Your task to perform on an android device: change notifications settings Image 0: 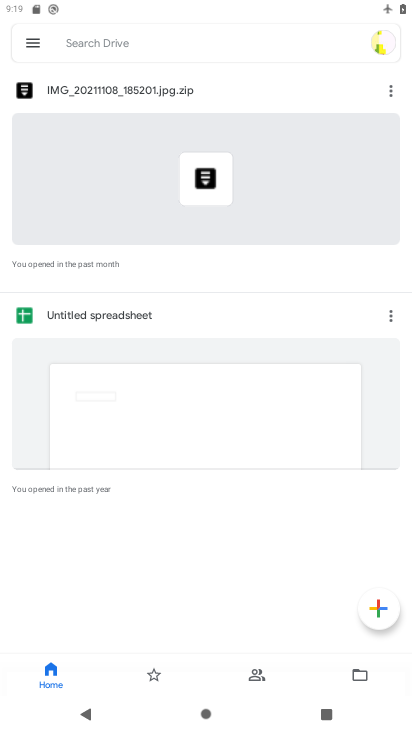
Step 0: press home button
Your task to perform on an android device: change notifications settings Image 1: 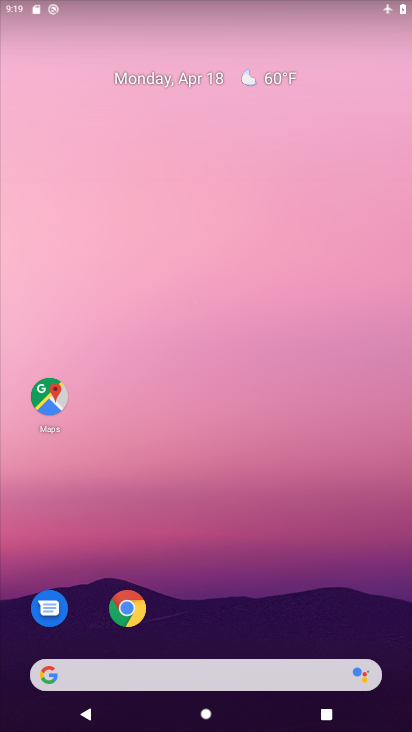
Step 1: drag from (390, 618) to (295, 163)
Your task to perform on an android device: change notifications settings Image 2: 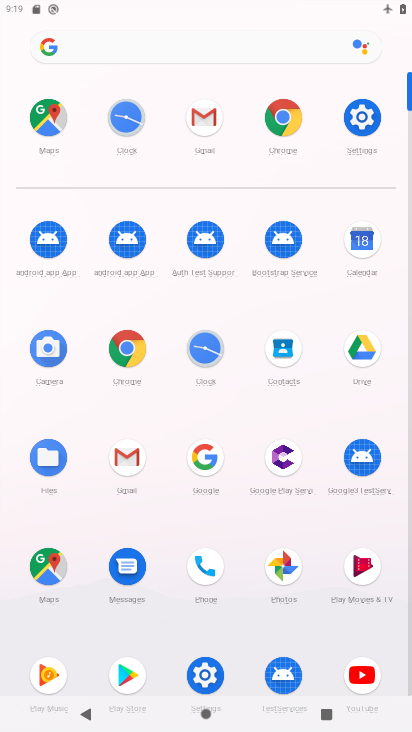
Step 2: click (370, 115)
Your task to perform on an android device: change notifications settings Image 3: 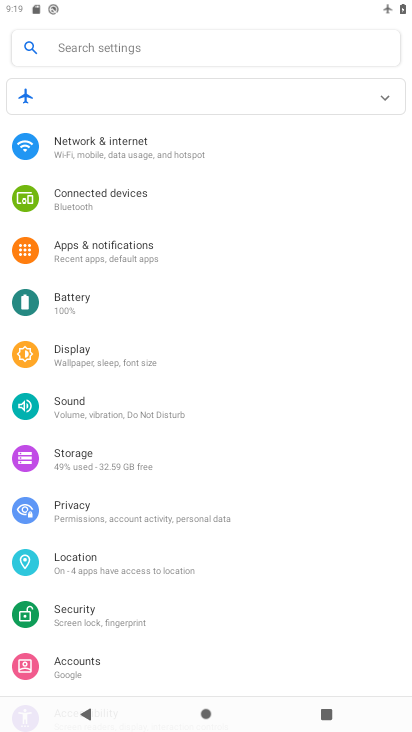
Step 3: click (126, 244)
Your task to perform on an android device: change notifications settings Image 4: 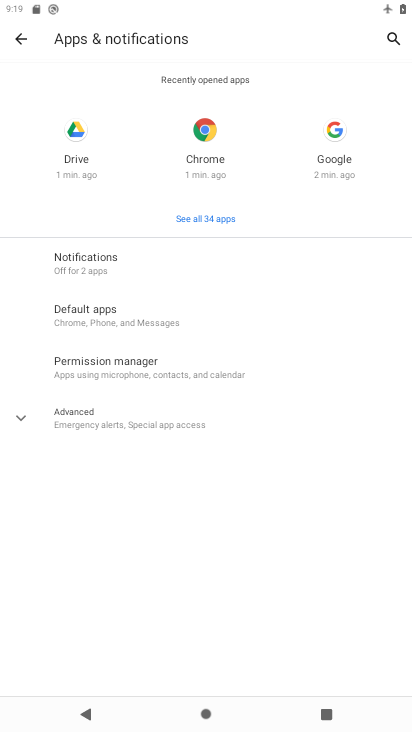
Step 4: click (116, 260)
Your task to perform on an android device: change notifications settings Image 5: 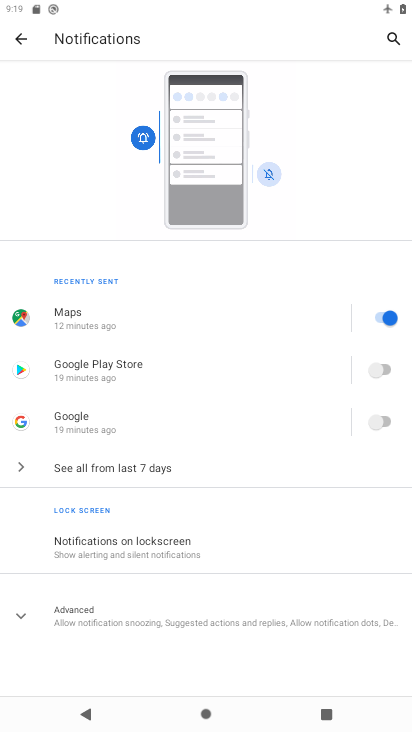
Step 5: click (379, 316)
Your task to perform on an android device: change notifications settings Image 6: 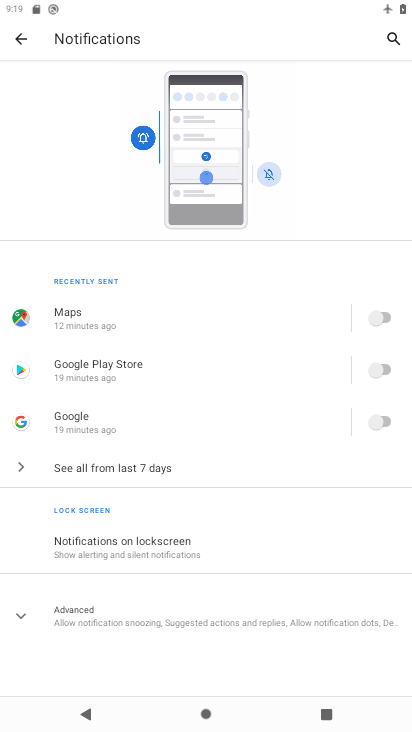
Step 6: task complete